Your task to perform on an android device: Open Google Chrome and open the bookmarks view Image 0: 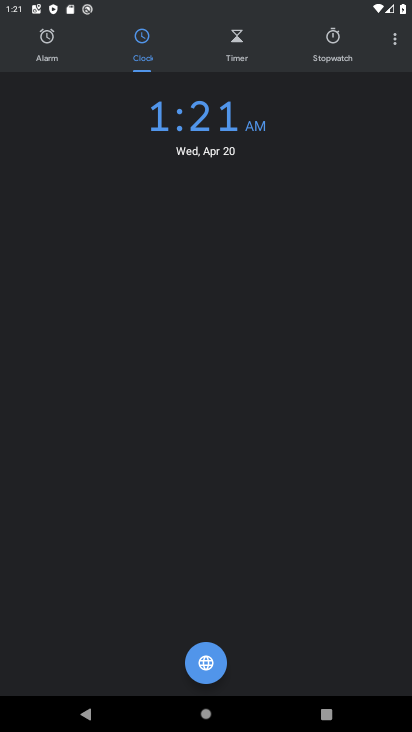
Step 0: press home button
Your task to perform on an android device: Open Google Chrome and open the bookmarks view Image 1: 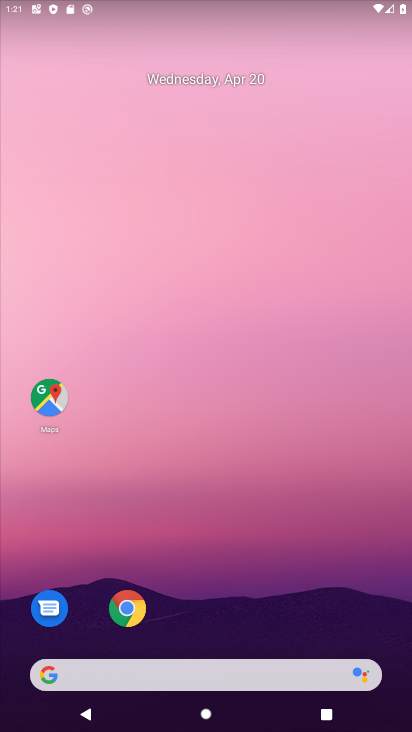
Step 1: click (128, 608)
Your task to perform on an android device: Open Google Chrome and open the bookmarks view Image 2: 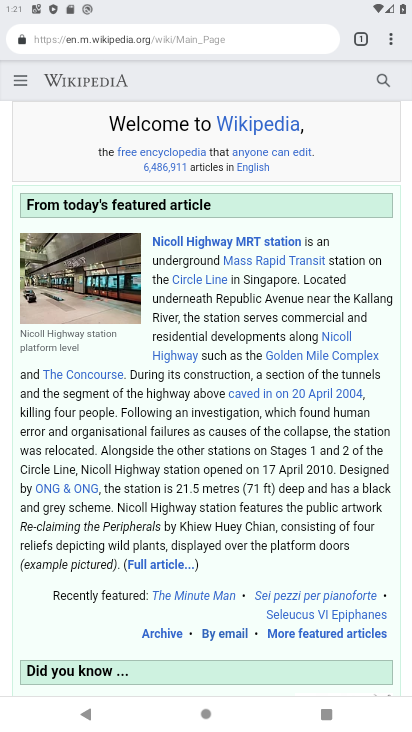
Step 2: click (392, 44)
Your task to perform on an android device: Open Google Chrome and open the bookmarks view Image 3: 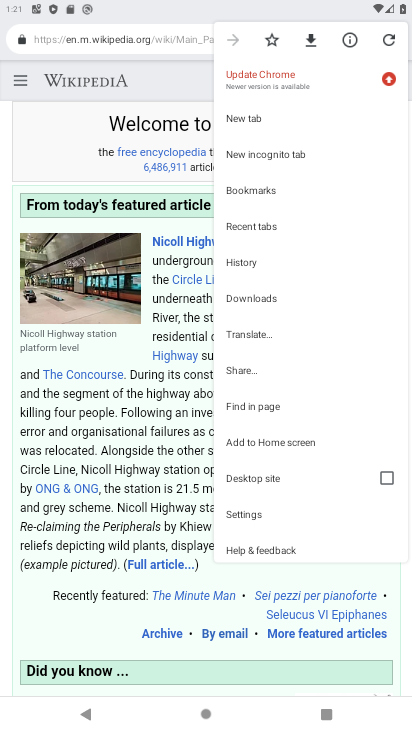
Step 3: click (254, 191)
Your task to perform on an android device: Open Google Chrome and open the bookmarks view Image 4: 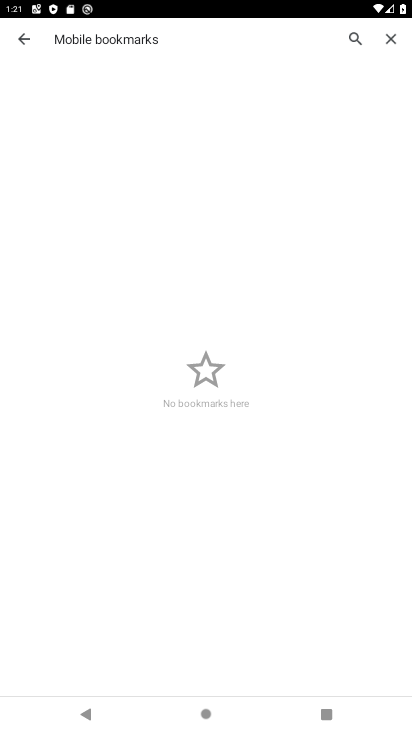
Step 4: task complete